Your task to perform on an android device: Search for vegetarian restaurants on Maps Image 0: 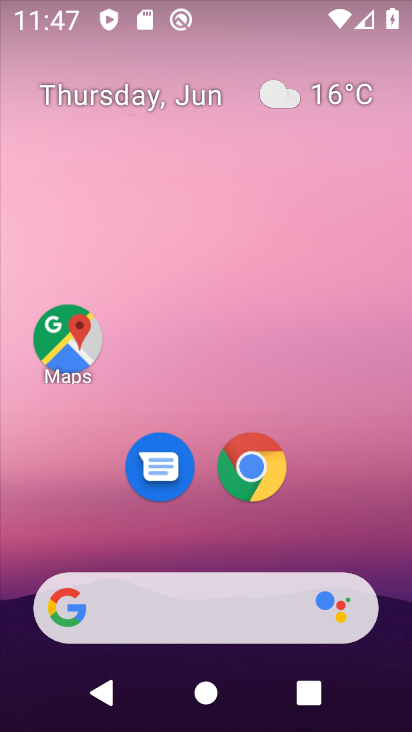
Step 0: click (68, 339)
Your task to perform on an android device: Search for vegetarian restaurants on Maps Image 1: 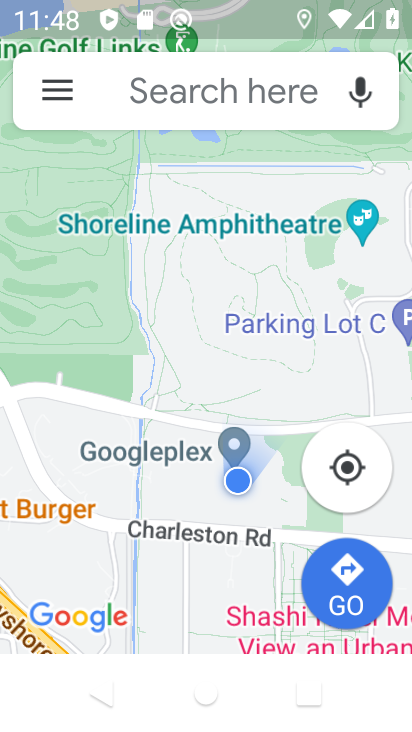
Step 1: click (141, 90)
Your task to perform on an android device: Search for vegetarian restaurants on Maps Image 2: 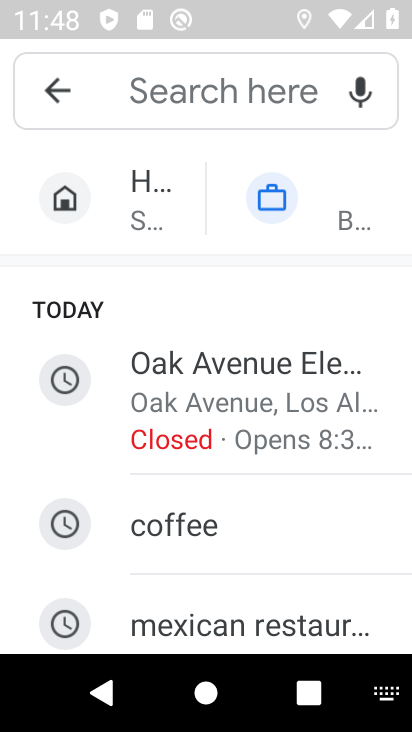
Step 2: type "vegetarian restaurants"
Your task to perform on an android device: Search for vegetarian restaurants on Maps Image 3: 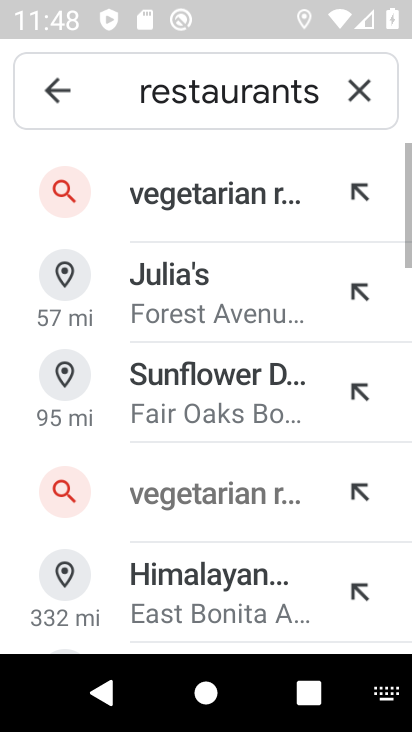
Step 3: click (180, 196)
Your task to perform on an android device: Search for vegetarian restaurants on Maps Image 4: 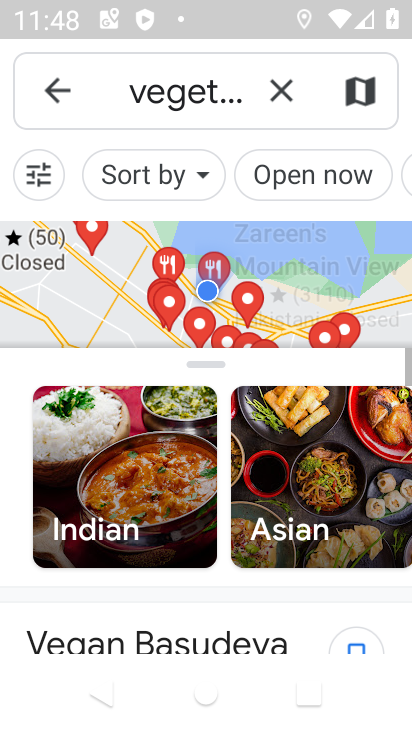
Step 4: click (179, 278)
Your task to perform on an android device: Search for vegetarian restaurants on Maps Image 5: 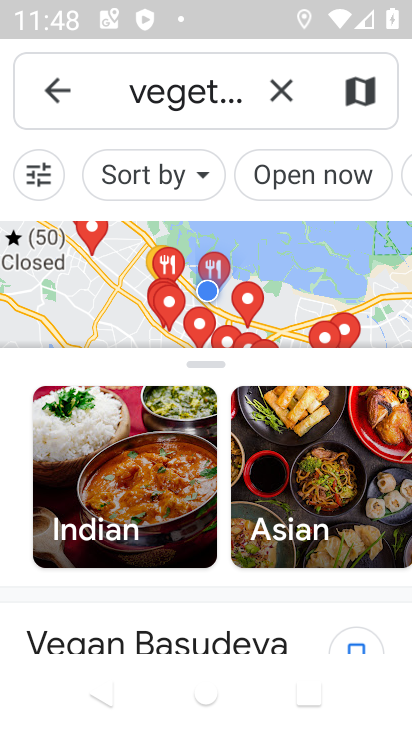
Step 5: task complete